Your task to perform on an android device: Go to Maps Image 0: 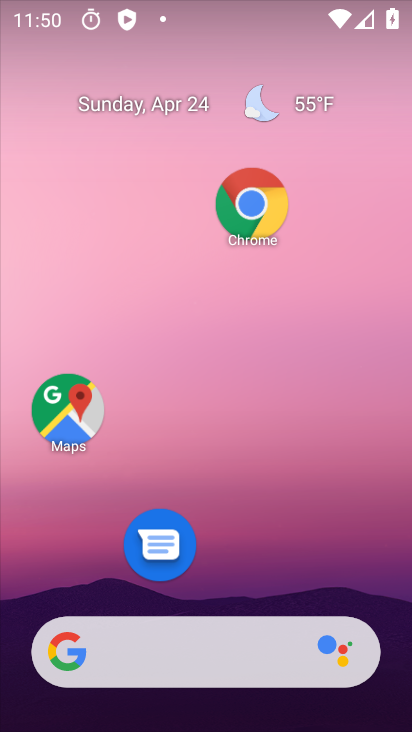
Step 0: drag from (324, 692) to (335, 138)
Your task to perform on an android device: Go to Maps Image 1: 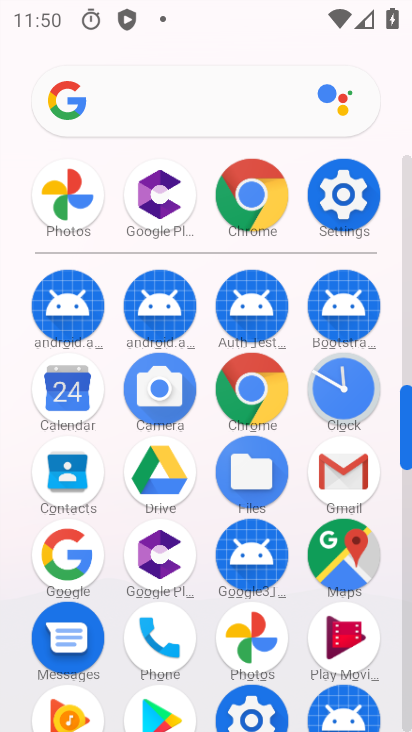
Step 1: click (337, 544)
Your task to perform on an android device: Go to Maps Image 2: 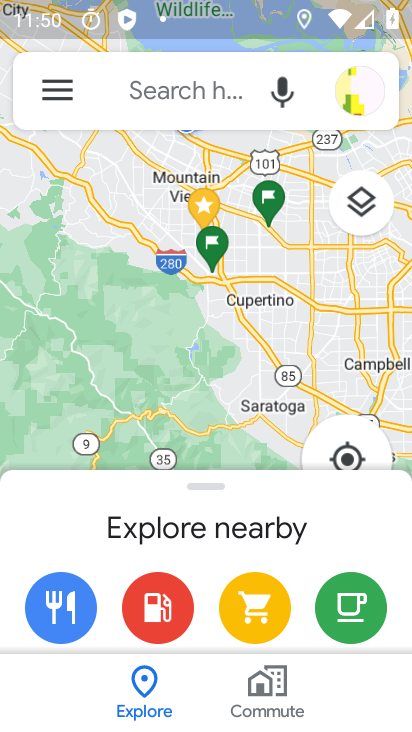
Step 2: click (355, 463)
Your task to perform on an android device: Go to Maps Image 3: 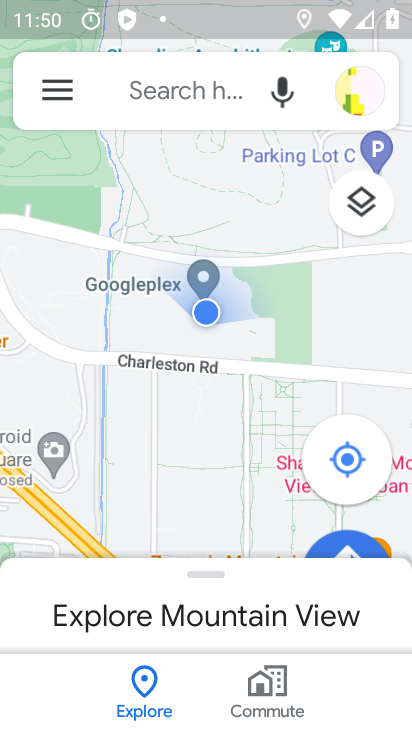
Step 3: task complete